Your task to perform on an android device: Check the news Image 0: 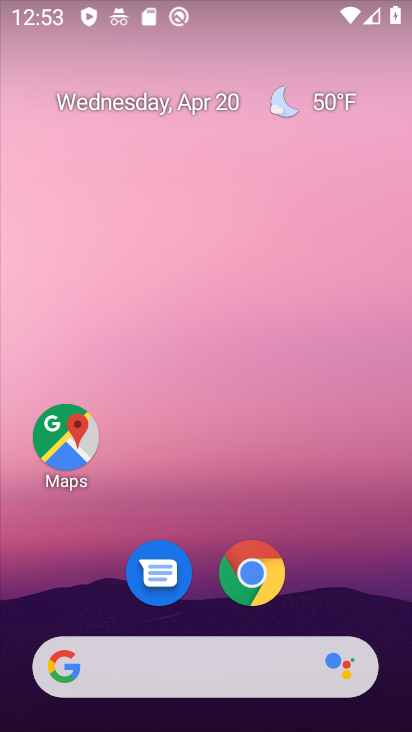
Step 0: drag from (70, 200) to (387, 359)
Your task to perform on an android device: Check the news Image 1: 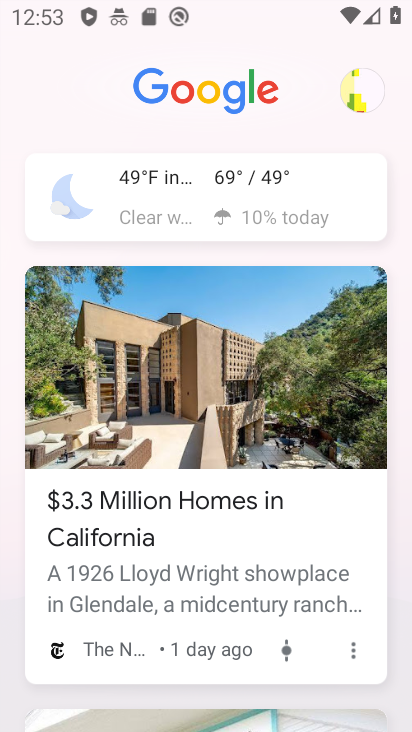
Step 1: task complete